Your task to perform on an android device: Go to network settings Image 0: 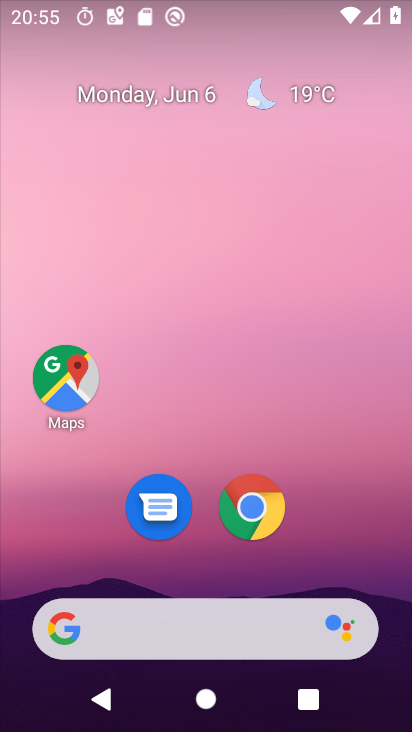
Step 0: press home button
Your task to perform on an android device: Go to network settings Image 1: 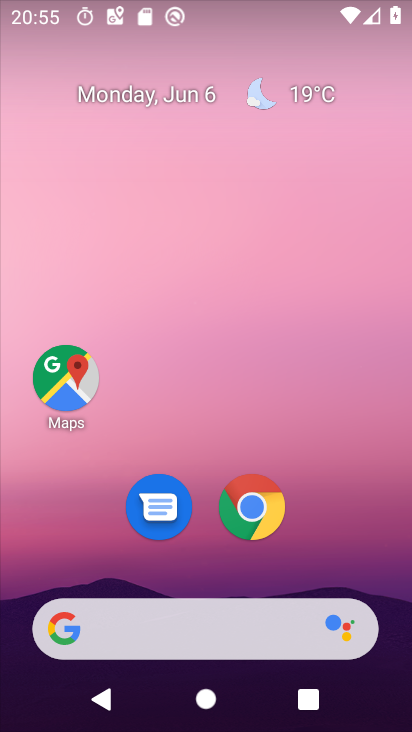
Step 1: drag from (374, 564) to (281, 78)
Your task to perform on an android device: Go to network settings Image 2: 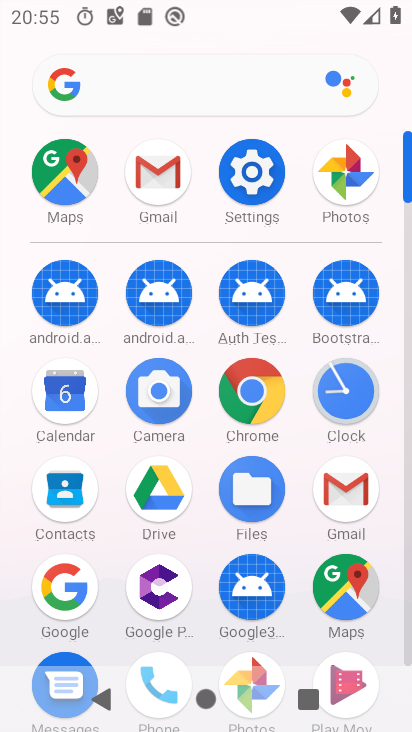
Step 2: click (250, 192)
Your task to perform on an android device: Go to network settings Image 3: 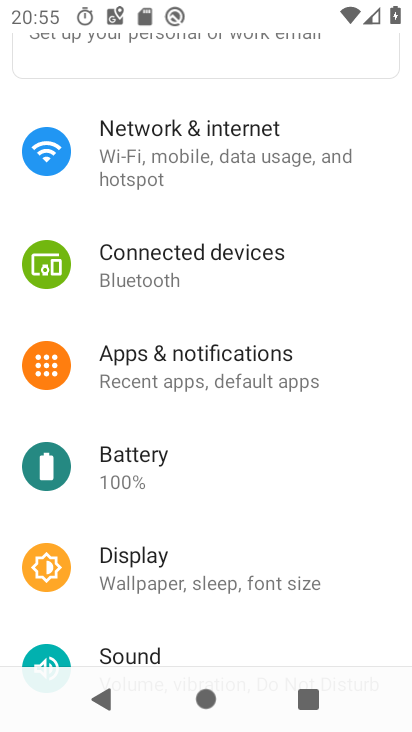
Step 3: drag from (250, 192) to (267, 307)
Your task to perform on an android device: Go to network settings Image 4: 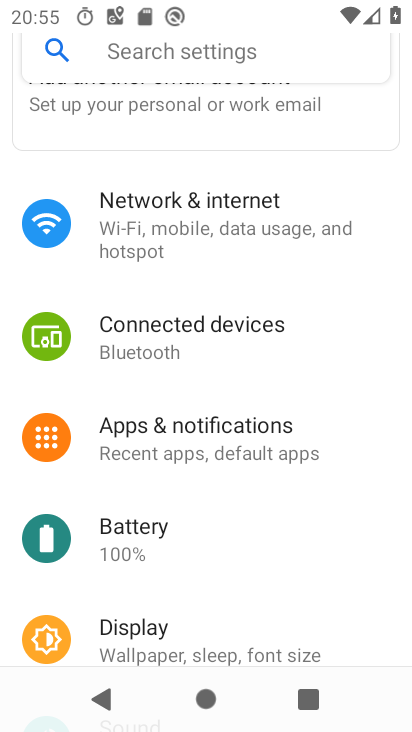
Step 4: click (202, 244)
Your task to perform on an android device: Go to network settings Image 5: 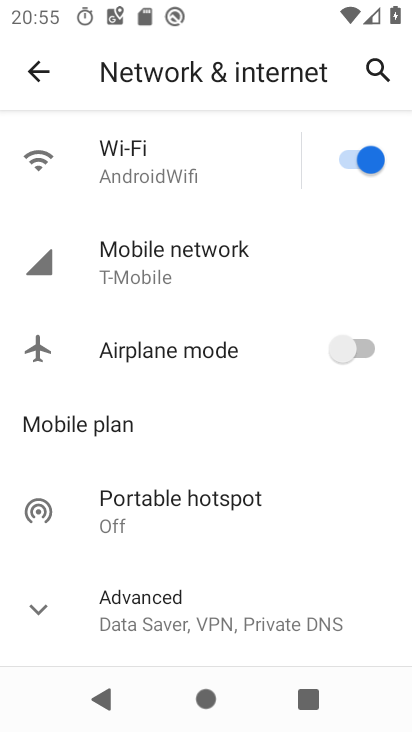
Step 5: task complete